Your task to perform on an android device: show emergency info Image 0: 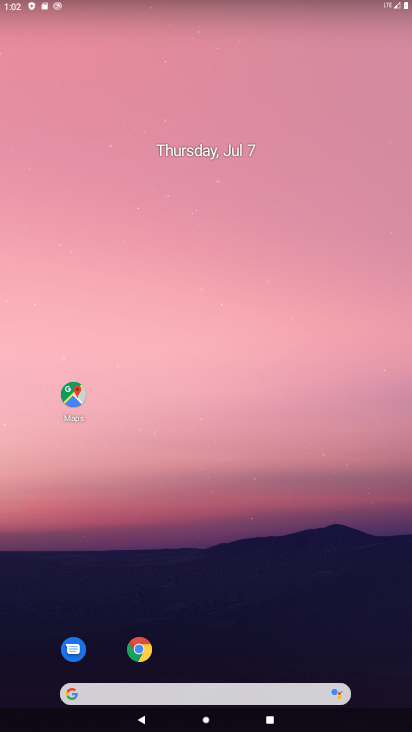
Step 0: press home button
Your task to perform on an android device: show emergency info Image 1: 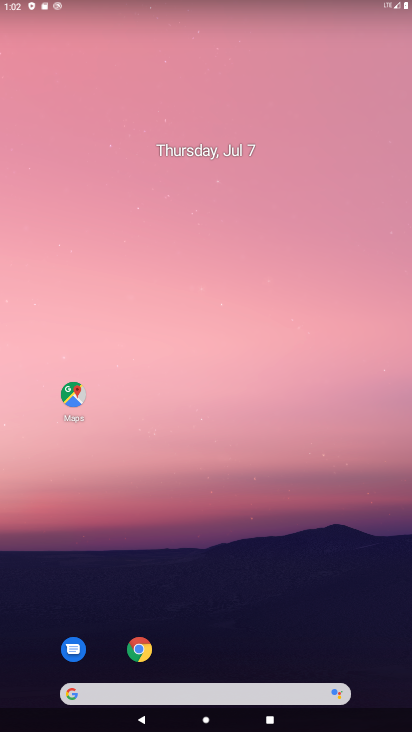
Step 1: drag from (232, 580) to (292, 97)
Your task to perform on an android device: show emergency info Image 2: 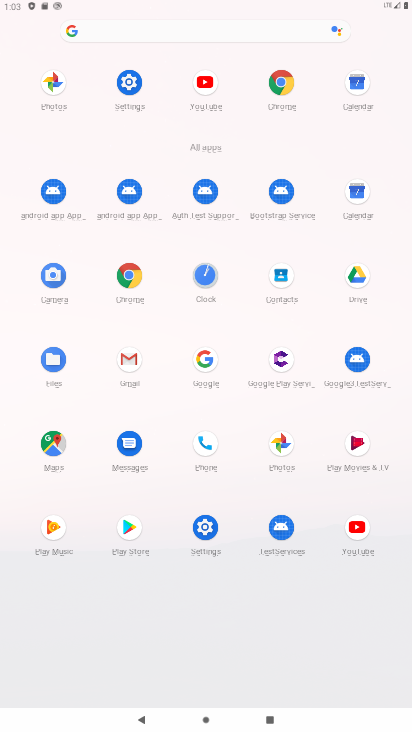
Step 2: click (196, 523)
Your task to perform on an android device: show emergency info Image 3: 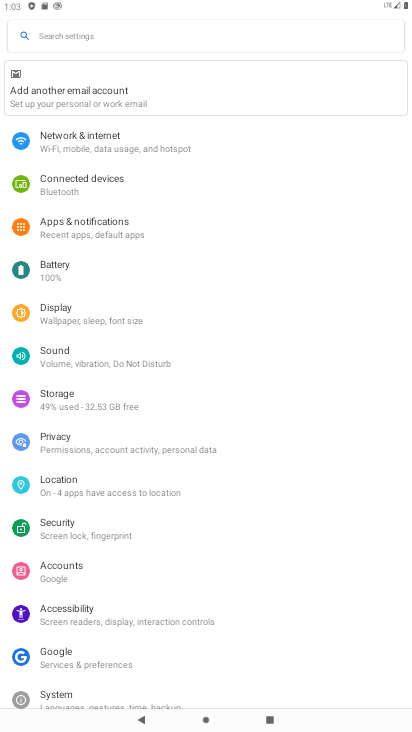
Step 3: drag from (272, 669) to (298, 268)
Your task to perform on an android device: show emergency info Image 4: 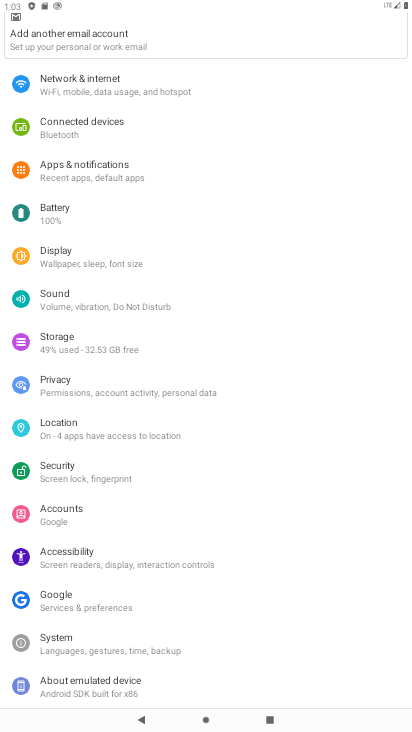
Step 4: click (84, 687)
Your task to perform on an android device: show emergency info Image 5: 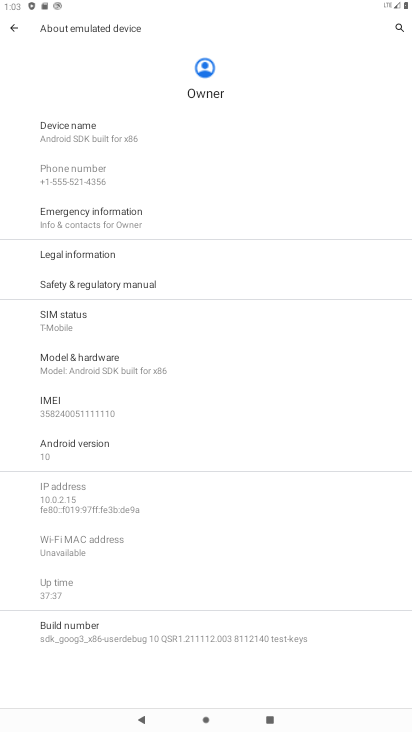
Step 5: click (90, 209)
Your task to perform on an android device: show emergency info Image 6: 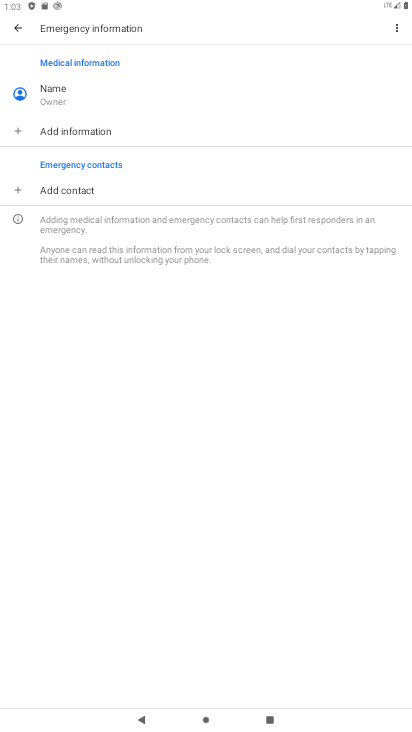
Step 6: task complete